Your task to perform on an android device: install app "Google Find My Device" Image 0: 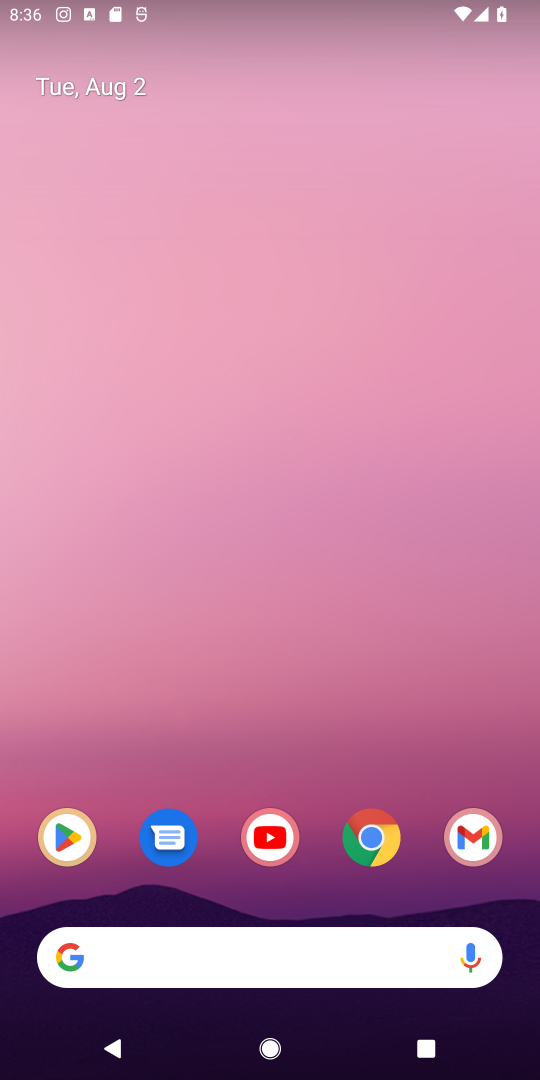
Step 0: click (71, 851)
Your task to perform on an android device: install app "Google Find My Device" Image 1: 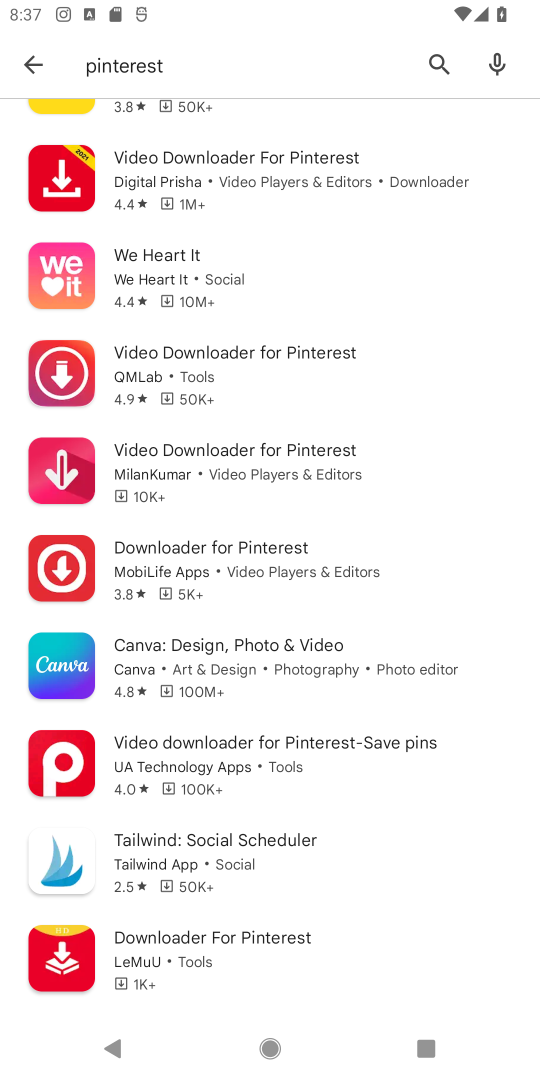
Step 1: click (434, 58)
Your task to perform on an android device: install app "Google Find My Device" Image 2: 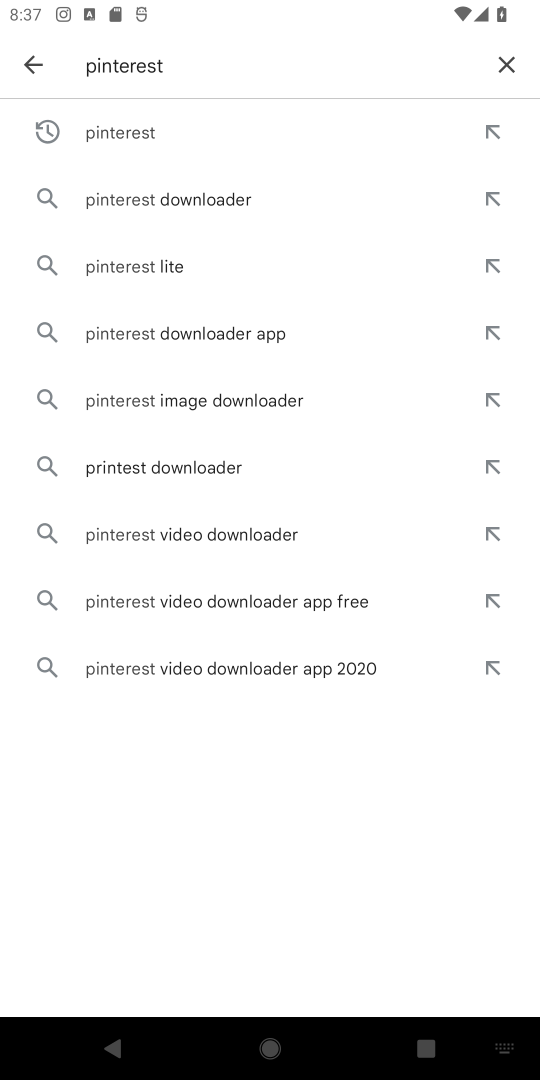
Step 2: click (494, 74)
Your task to perform on an android device: install app "Google Find My Device" Image 3: 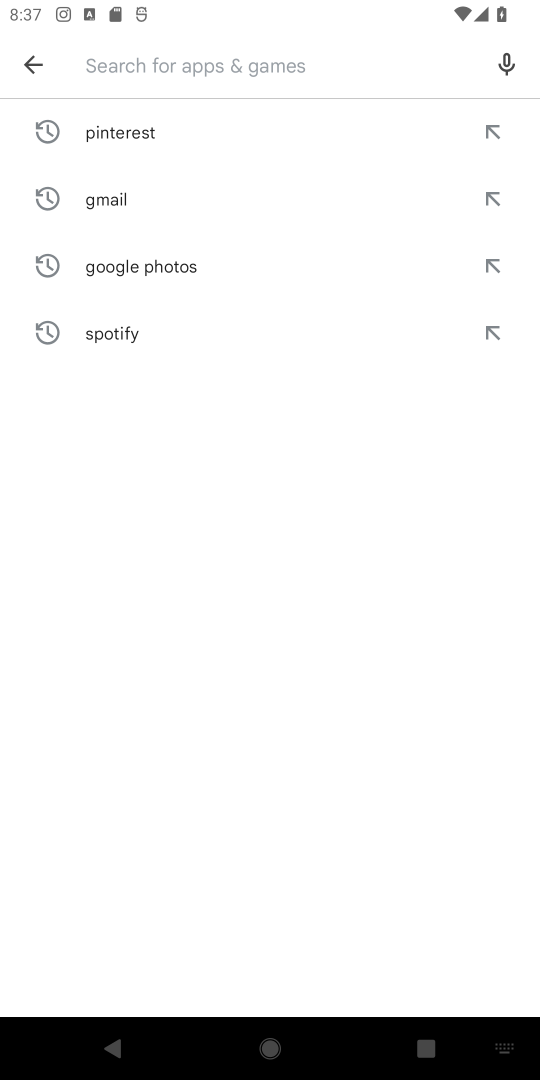
Step 3: type "Google Find My Device"
Your task to perform on an android device: install app "Google Find My Device" Image 4: 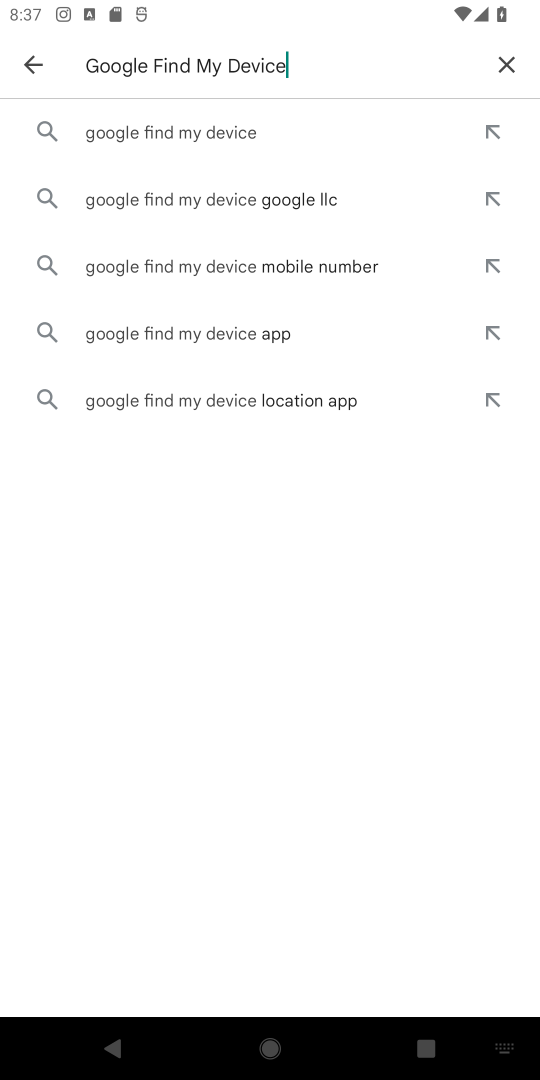
Step 4: click (129, 137)
Your task to perform on an android device: install app "Google Find My Device" Image 5: 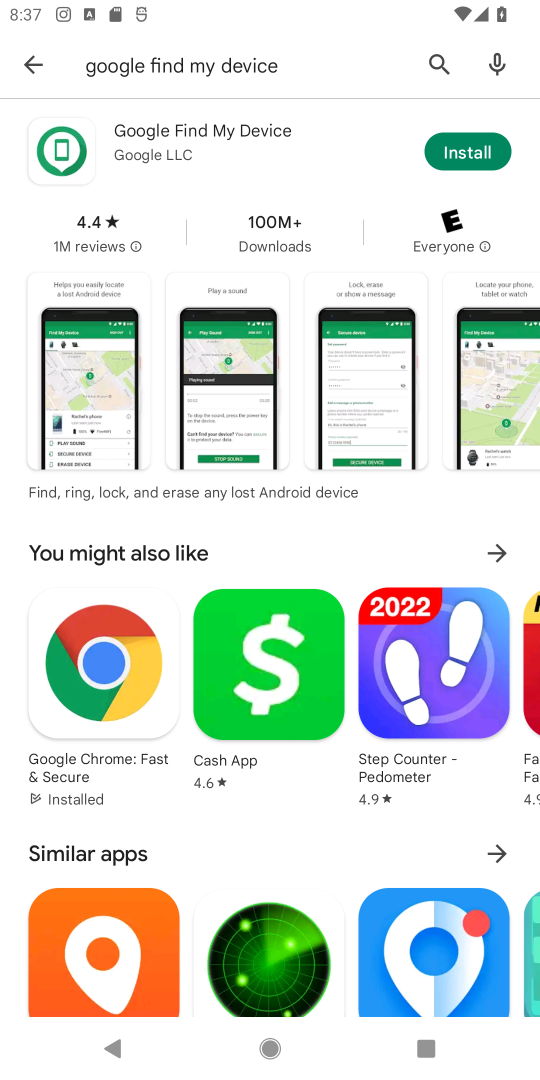
Step 5: click (459, 148)
Your task to perform on an android device: install app "Google Find My Device" Image 6: 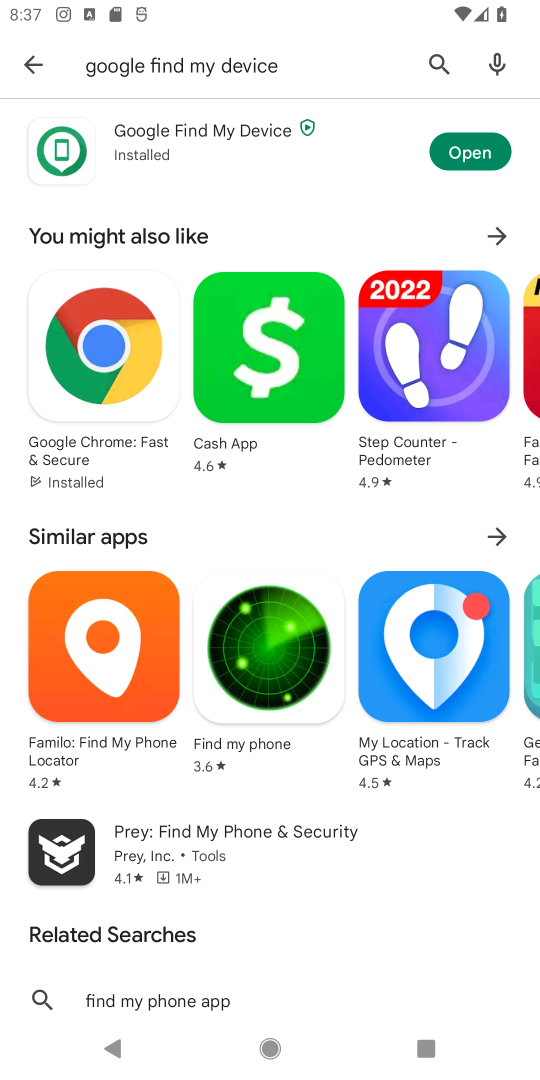
Step 6: task complete